Your task to perform on an android device: Go to wifi settings Image 0: 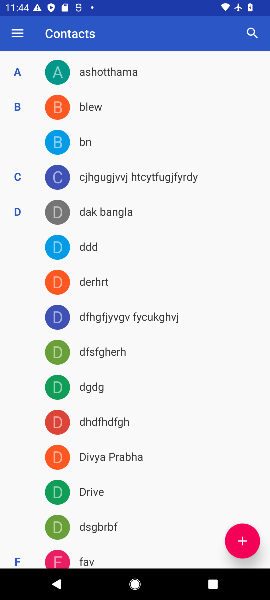
Step 0: press home button
Your task to perform on an android device: Go to wifi settings Image 1: 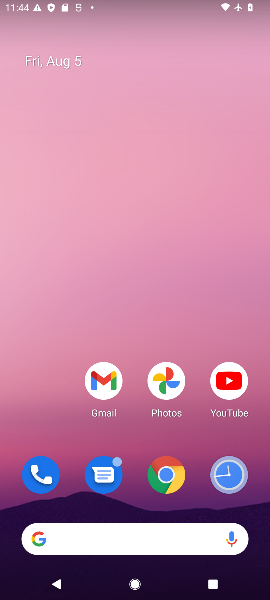
Step 1: drag from (135, 508) to (142, 88)
Your task to perform on an android device: Go to wifi settings Image 2: 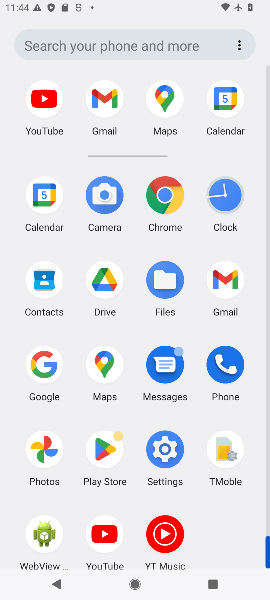
Step 2: click (169, 470)
Your task to perform on an android device: Go to wifi settings Image 3: 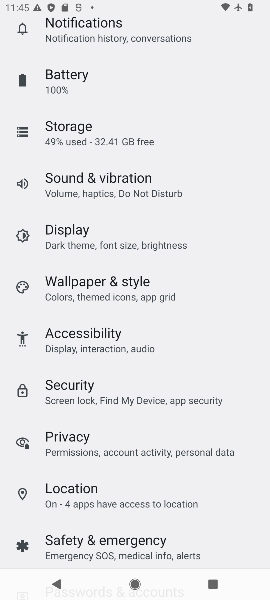
Step 3: drag from (126, 126) to (138, 590)
Your task to perform on an android device: Go to wifi settings Image 4: 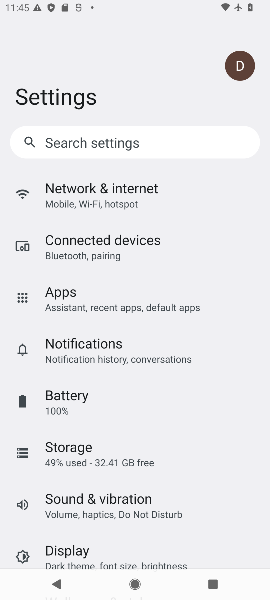
Step 4: click (127, 196)
Your task to perform on an android device: Go to wifi settings Image 5: 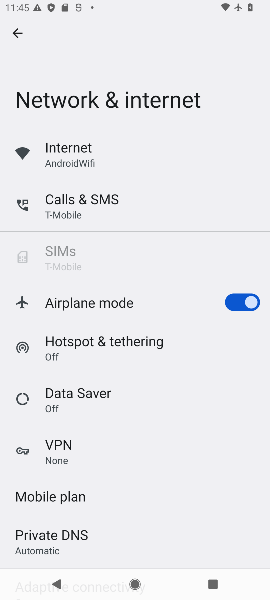
Step 5: task complete